Your task to perform on an android device: check android version Image 0: 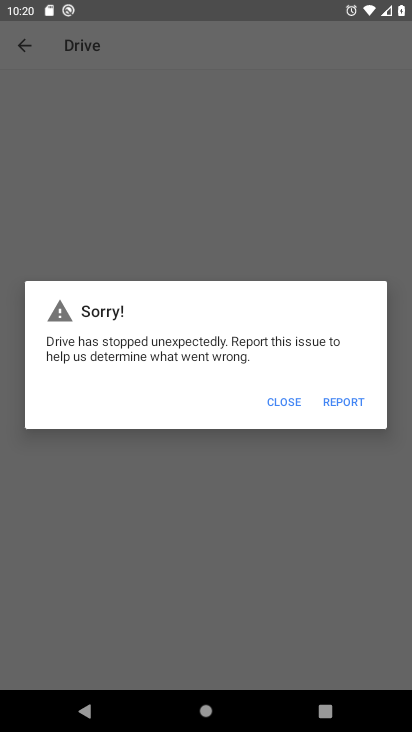
Step 0: click (272, 392)
Your task to perform on an android device: check android version Image 1: 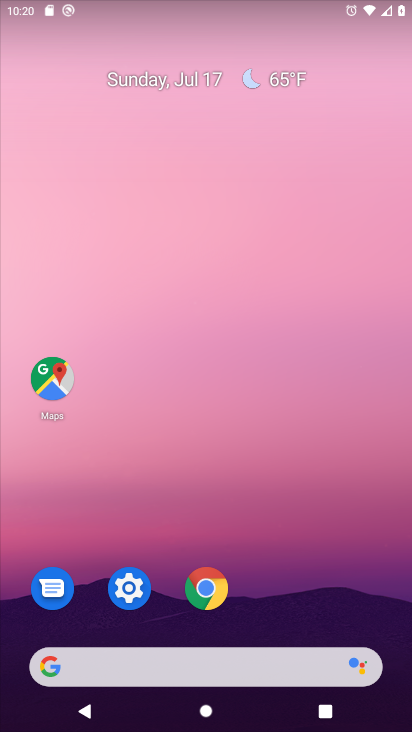
Step 1: drag from (254, 539) to (207, 50)
Your task to perform on an android device: check android version Image 2: 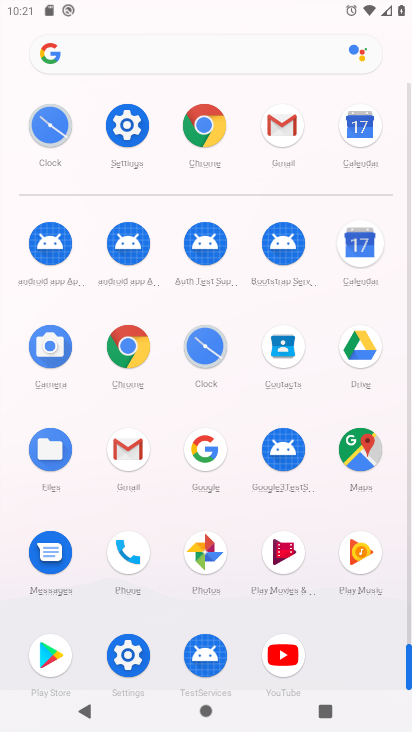
Step 2: click (129, 125)
Your task to perform on an android device: check android version Image 3: 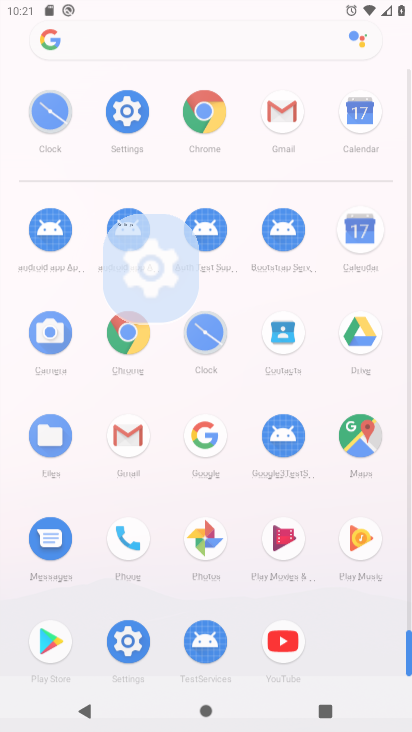
Step 3: click (145, 167)
Your task to perform on an android device: check android version Image 4: 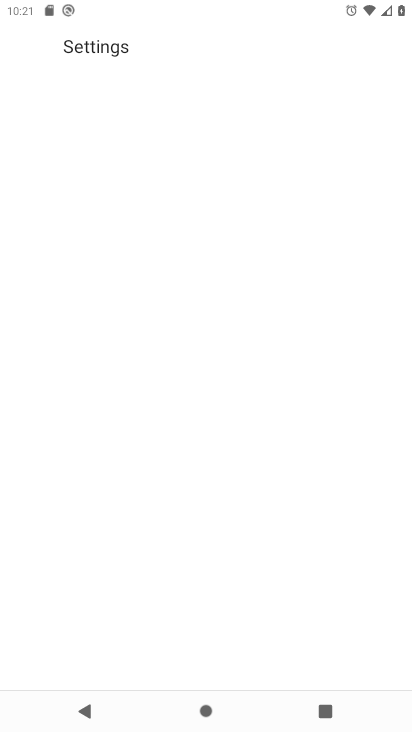
Step 4: click (126, 124)
Your task to perform on an android device: check android version Image 5: 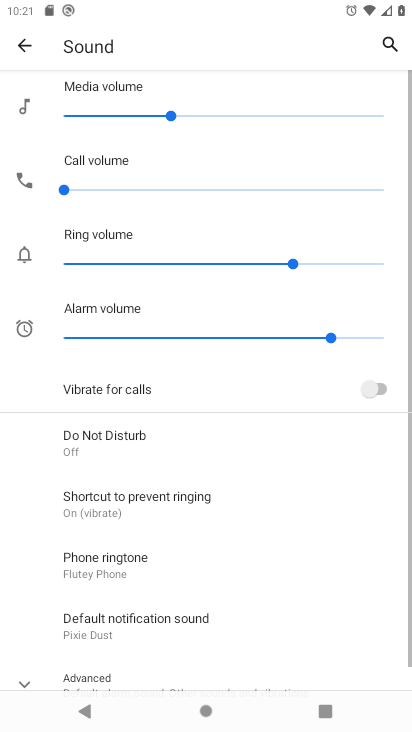
Step 5: drag from (182, 433) to (175, 136)
Your task to perform on an android device: check android version Image 6: 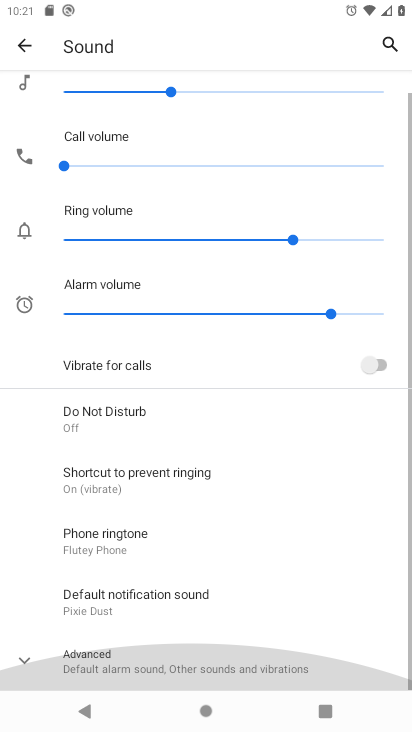
Step 6: drag from (208, 525) to (177, 136)
Your task to perform on an android device: check android version Image 7: 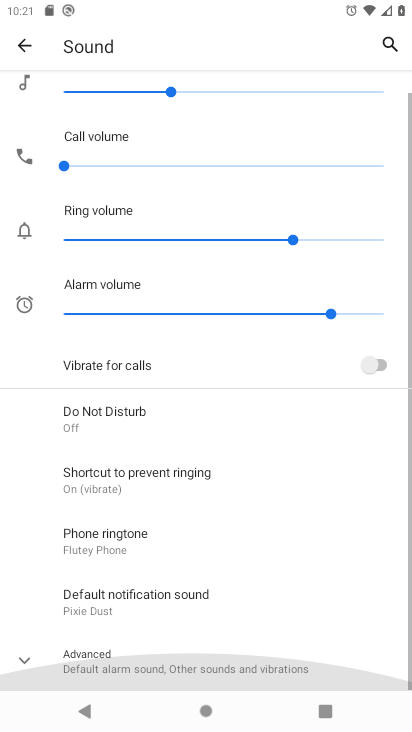
Step 7: drag from (233, 581) to (188, 182)
Your task to perform on an android device: check android version Image 8: 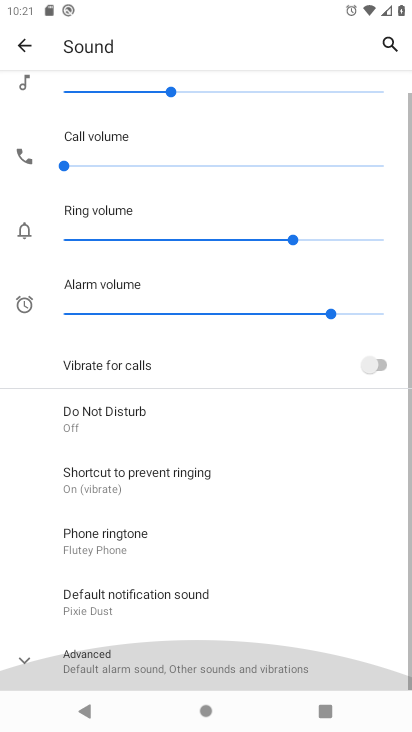
Step 8: drag from (206, 546) to (203, 70)
Your task to perform on an android device: check android version Image 9: 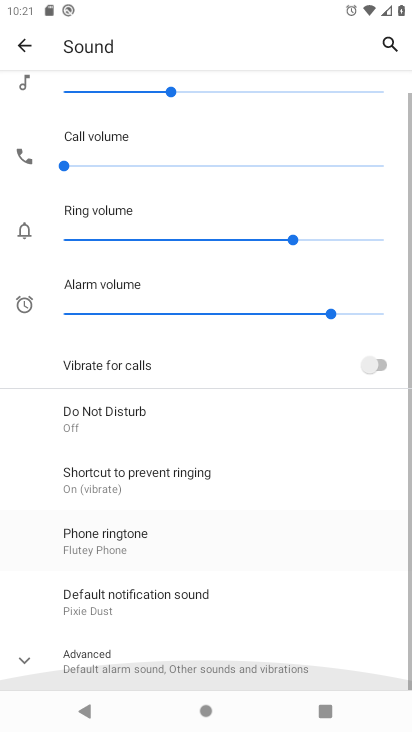
Step 9: drag from (222, 419) to (233, 47)
Your task to perform on an android device: check android version Image 10: 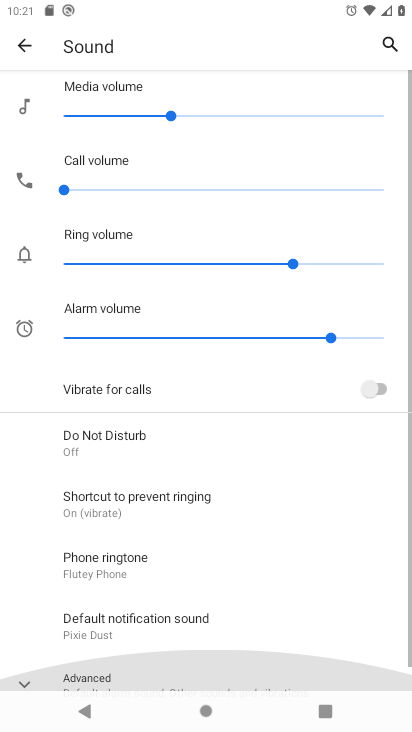
Step 10: drag from (192, 385) to (90, 7)
Your task to perform on an android device: check android version Image 11: 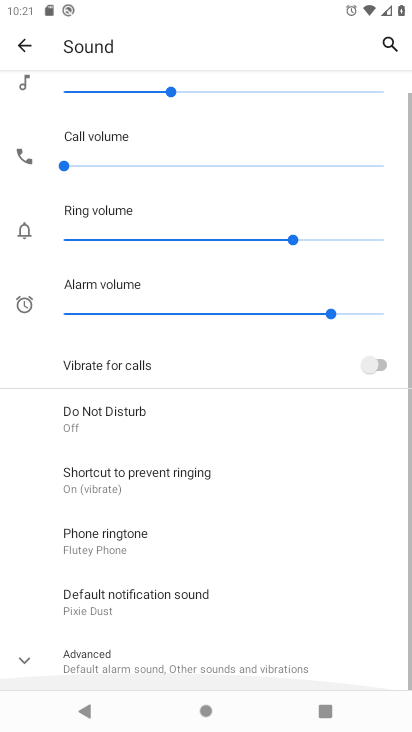
Step 11: drag from (108, 301) to (400, 552)
Your task to perform on an android device: check android version Image 12: 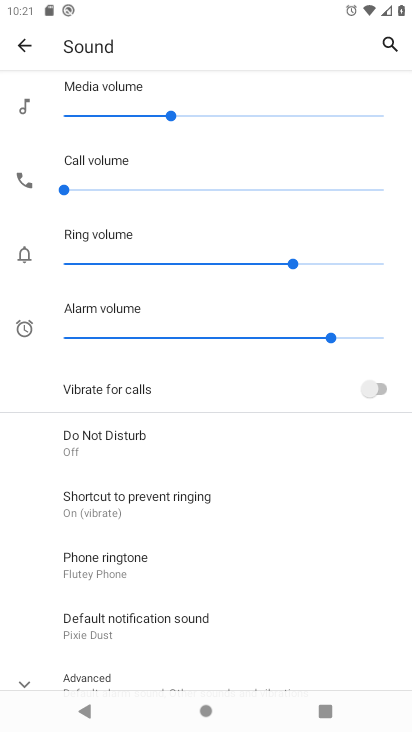
Step 12: drag from (215, 485) to (186, 158)
Your task to perform on an android device: check android version Image 13: 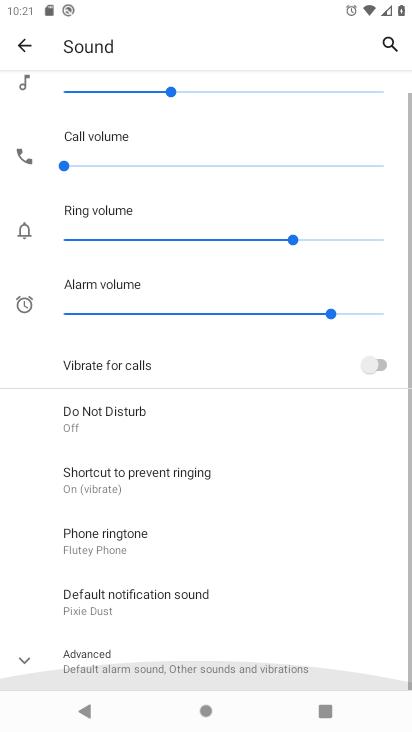
Step 13: drag from (172, 588) to (133, 220)
Your task to perform on an android device: check android version Image 14: 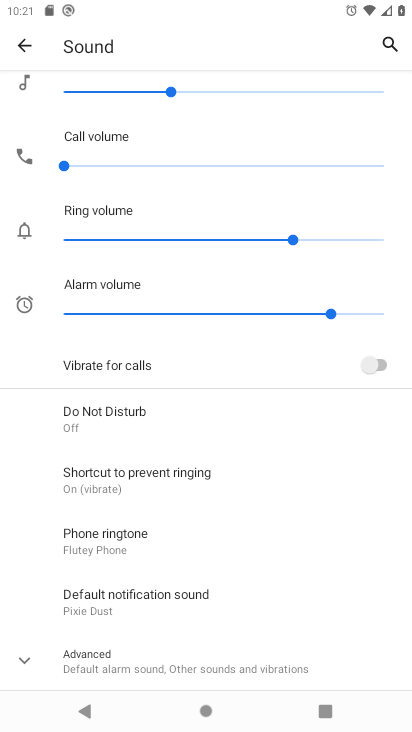
Step 14: drag from (185, 646) to (198, 298)
Your task to perform on an android device: check android version Image 15: 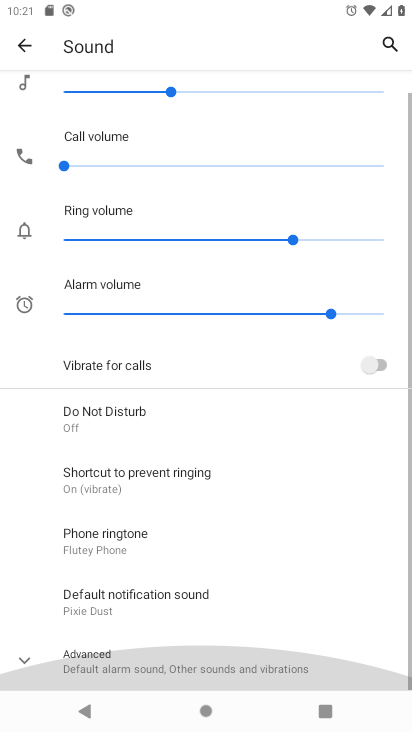
Step 15: drag from (242, 533) to (210, 308)
Your task to perform on an android device: check android version Image 16: 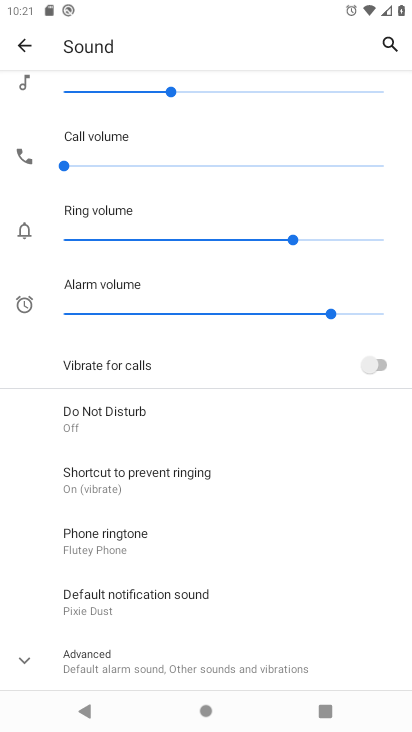
Step 16: click (100, 660)
Your task to perform on an android device: check android version Image 17: 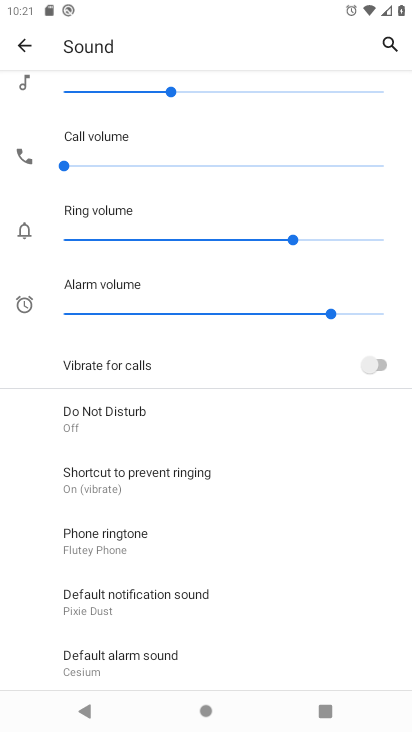
Step 17: click (91, 409)
Your task to perform on an android device: check android version Image 18: 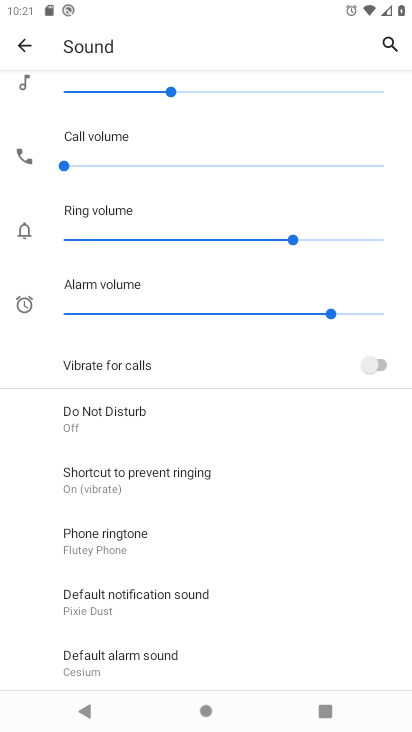
Step 18: click (92, 410)
Your task to perform on an android device: check android version Image 19: 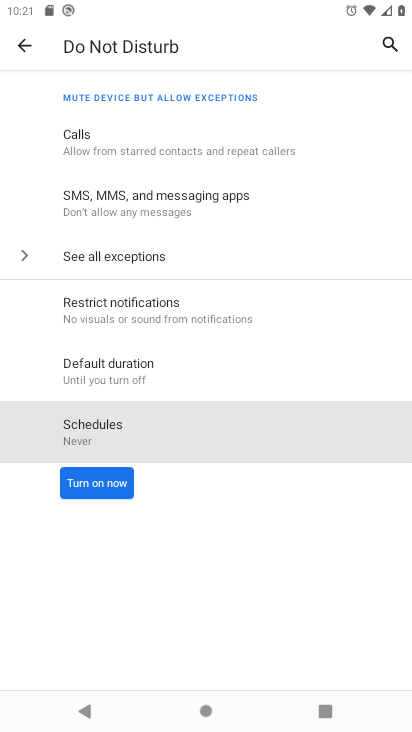
Step 19: click (88, 413)
Your task to perform on an android device: check android version Image 20: 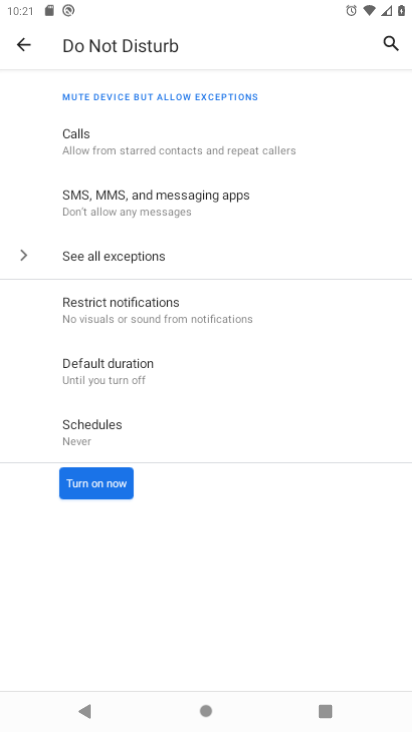
Step 20: click (87, 411)
Your task to perform on an android device: check android version Image 21: 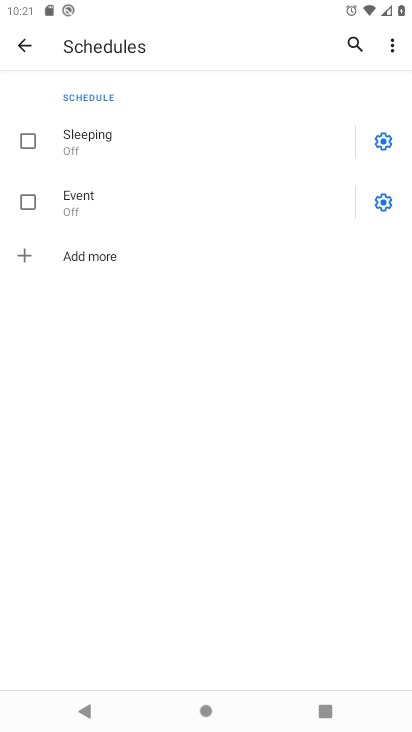
Step 21: click (22, 45)
Your task to perform on an android device: check android version Image 22: 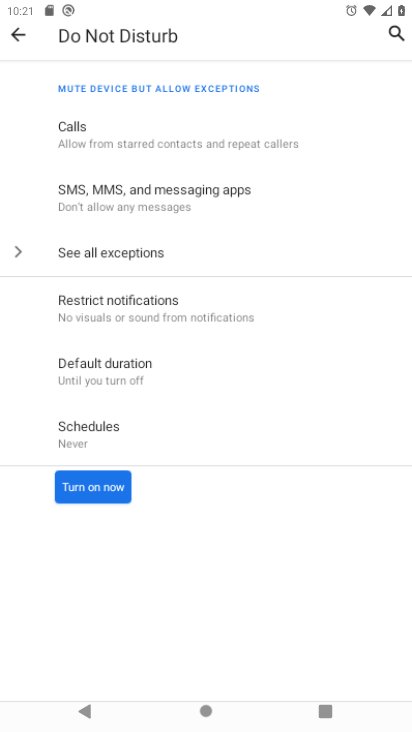
Step 22: click (24, 44)
Your task to perform on an android device: check android version Image 23: 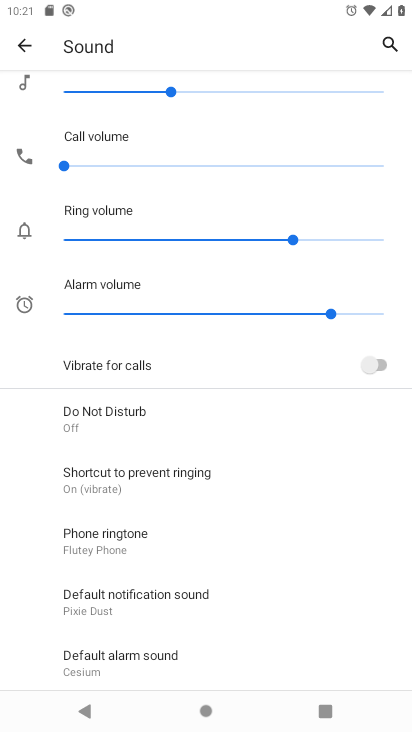
Step 23: drag from (138, 470) to (165, 116)
Your task to perform on an android device: check android version Image 24: 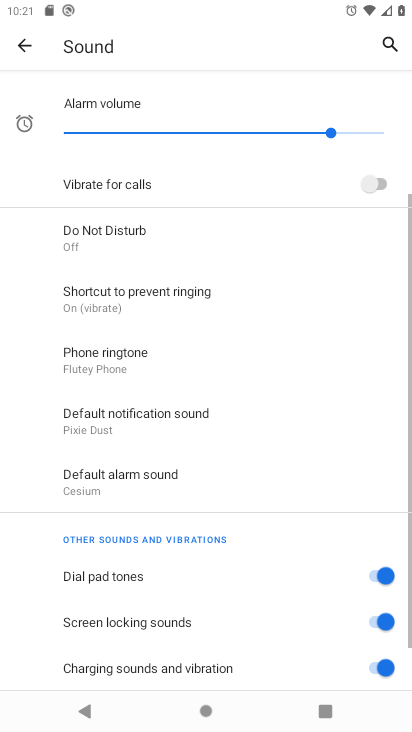
Step 24: drag from (165, 595) to (165, 41)
Your task to perform on an android device: check android version Image 25: 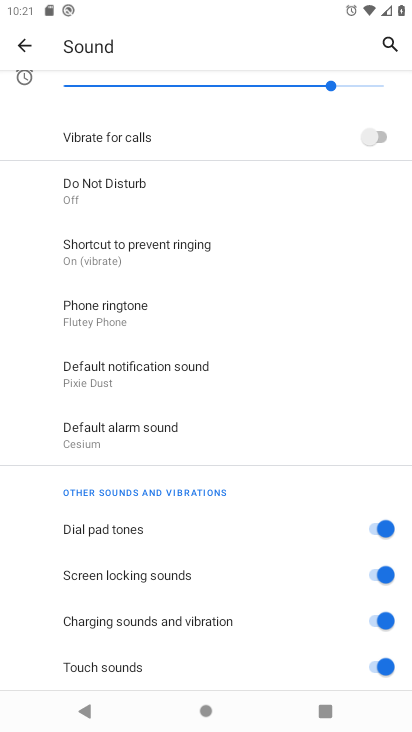
Step 25: click (6, 38)
Your task to perform on an android device: check android version Image 26: 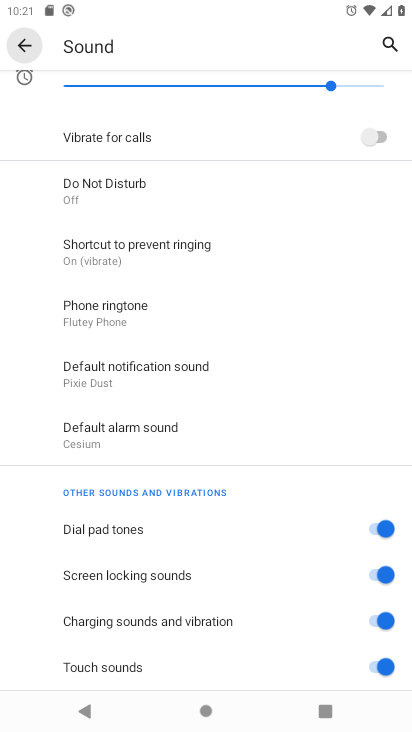
Step 26: click (18, 54)
Your task to perform on an android device: check android version Image 27: 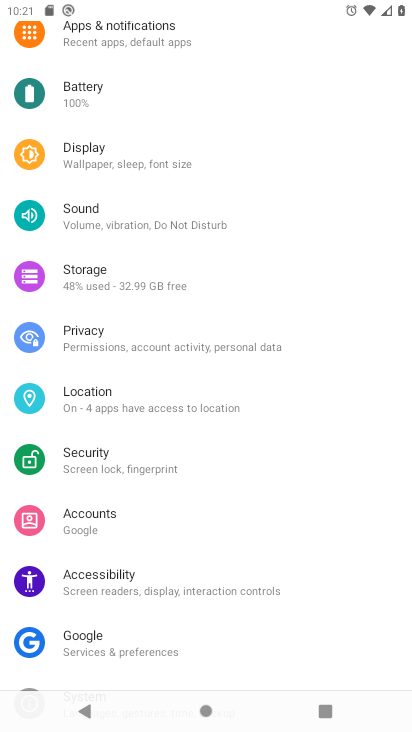
Step 27: drag from (118, 545) to (117, 195)
Your task to perform on an android device: check android version Image 28: 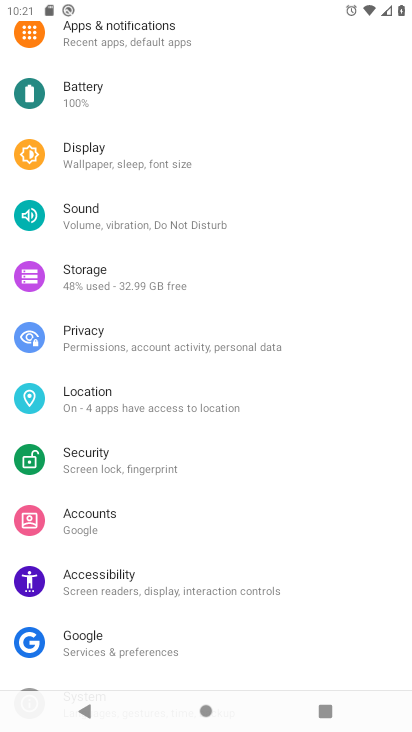
Step 28: drag from (160, 530) to (281, 138)
Your task to perform on an android device: check android version Image 29: 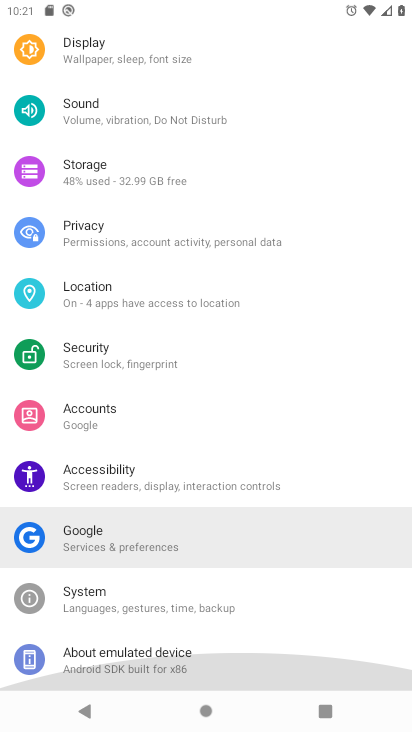
Step 29: drag from (206, 555) to (196, 173)
Your task to perform on an android device: check android version Image 30: 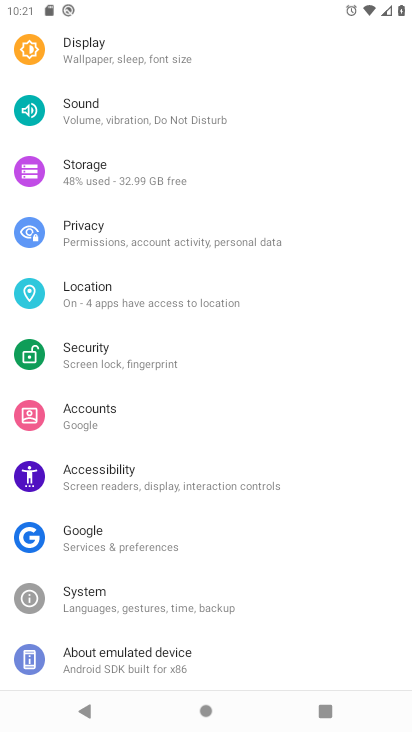
Step 30: click (130, 669)
Your task to perform on an android device: check android version Image 31: 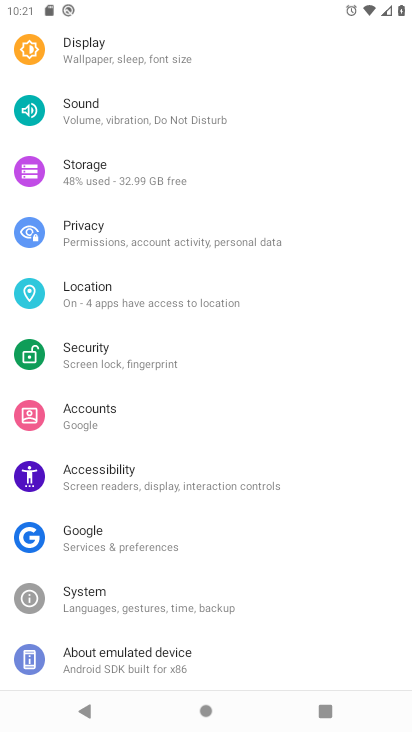
Step 31: click (125, 664)
Your task to perform on an android device: check android version Image 32: 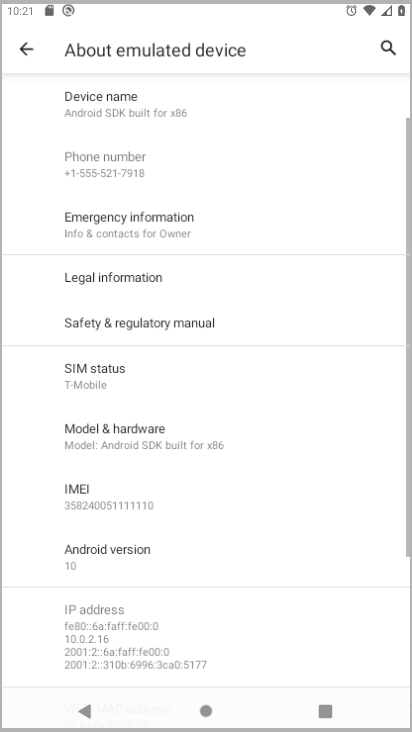
Step 32: click (125, 664)
Your task to perform on an android device: check android version Image 33: 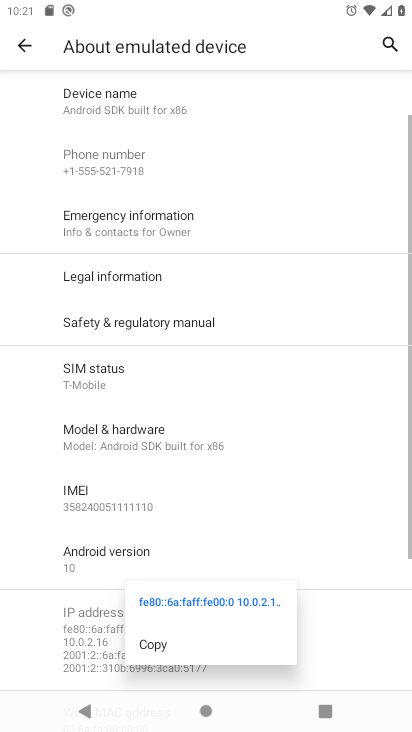
Step 33: task complete